Your task to perform on an android device: Open Yahoo.com Image 0: 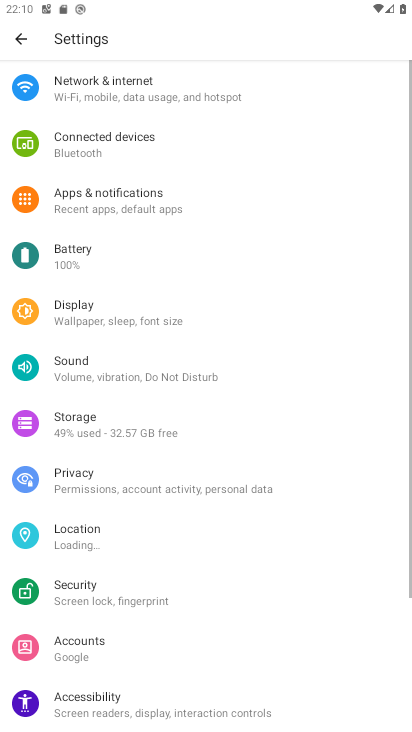
Step 0: press home button
Your task to perform on an android device: Open Yahoo.com Image 1: 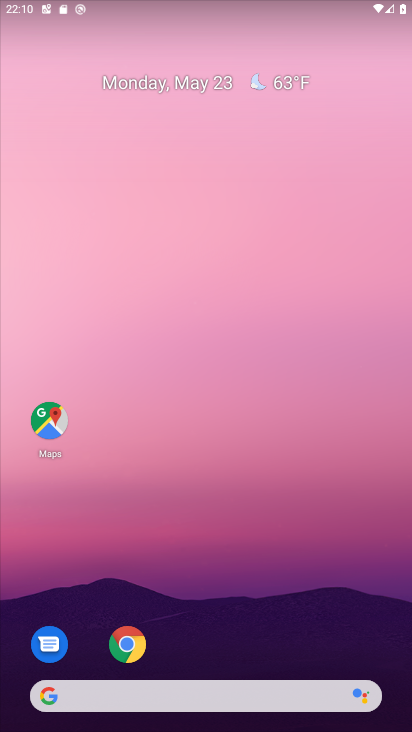
Step 1: click (125, 642)
Your task to perform on an android device: Open Yahoo.com Image 2: 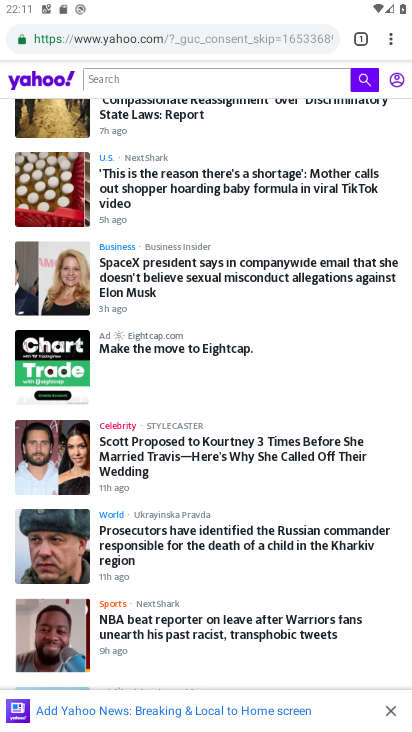
Step 2: task complete